Your task to perform on an android device: Open Amazon Image 0: 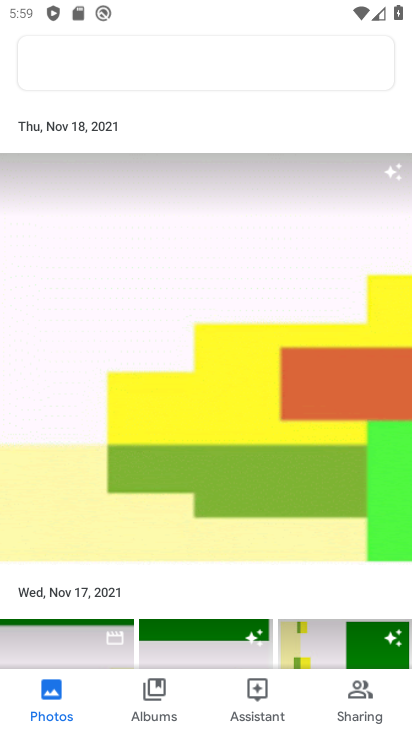
Step 0: drag from (289, 644) to (366, 143)
Your task to perform on an android device: Open Amazon Image 1: 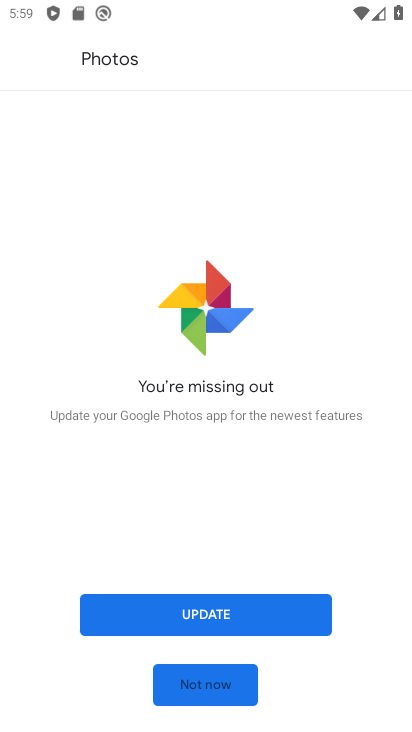
Step 1: press back button
Your task to perform on an android device: Open Amazon Image 2: 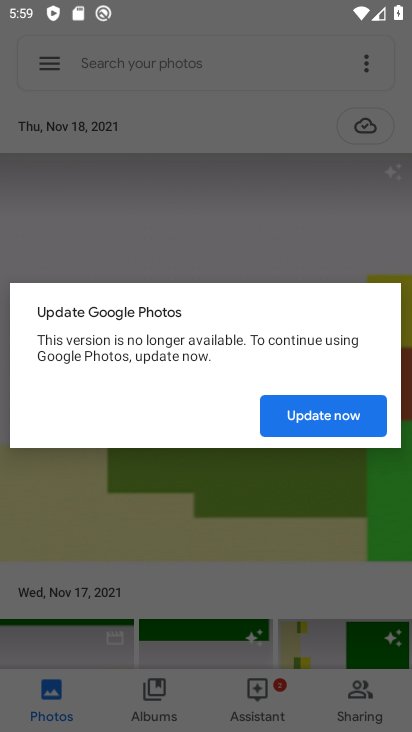
Step 2: press home button
Your task to perform on an android device: Open Amazon Image 3: 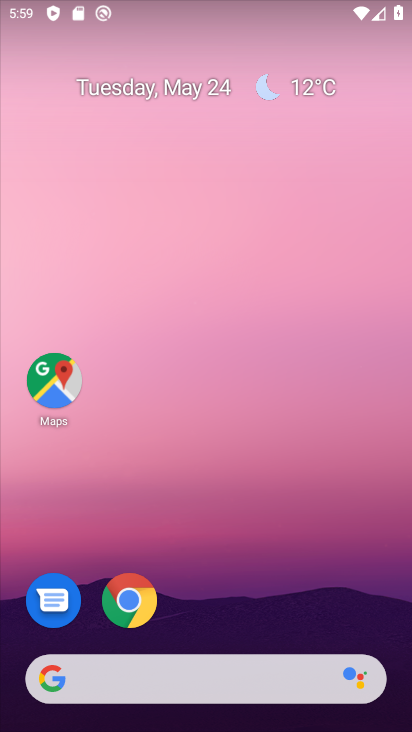
Step 3: drag from (288, 632) to (376, 12)
Your task to perform on an android device: Open Amazon Image 4: 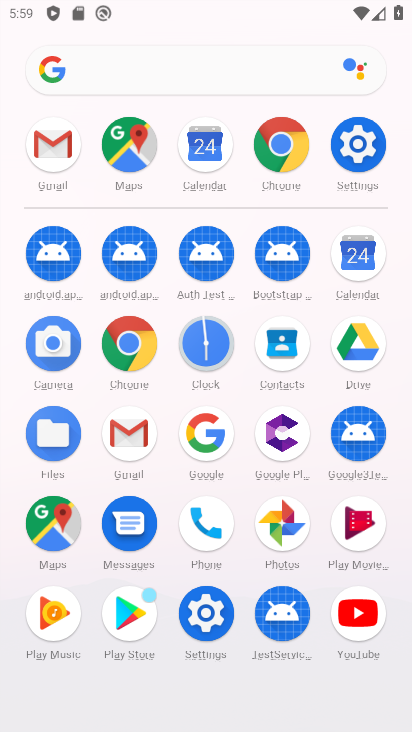
Step 4: click (134, 339)
Your task to perform on an android device: Open Amazon Image 5: 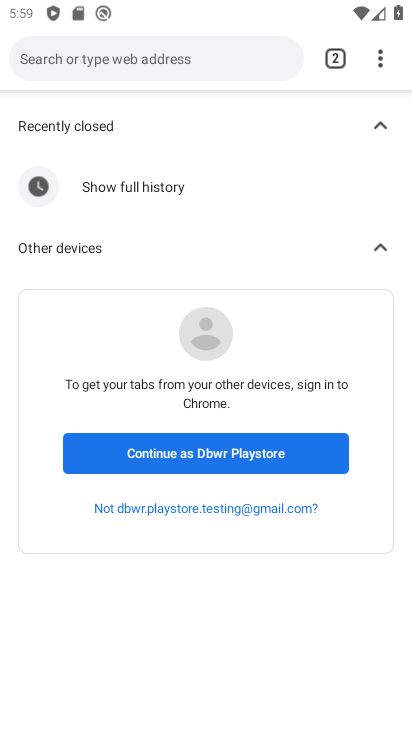
Step 5: click (373, 60)
Your task to perform on an android device: Open Amazon Image 6: 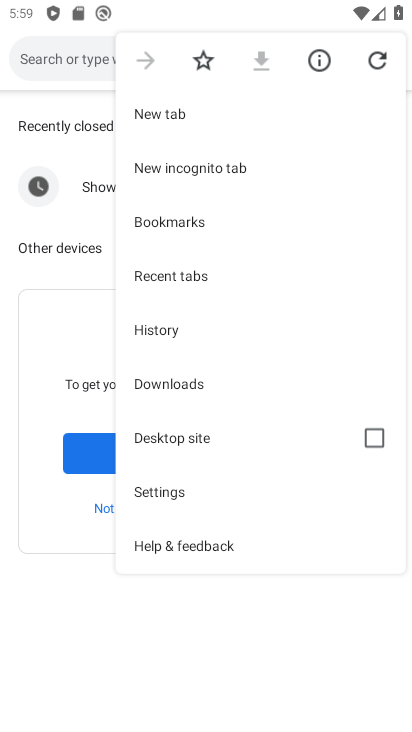
Step 6: click (237, 119)
Your task to perform on an android device: Open Amazon Image 7: 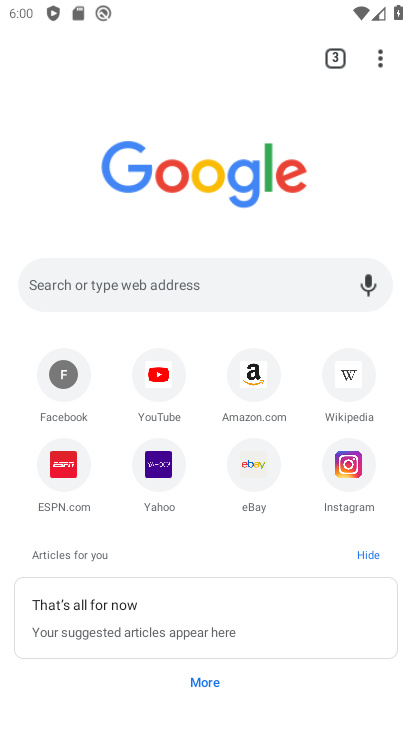
Step 7: click (275, 381)
Your task to perform on an android device: Open Amazon Image 8: 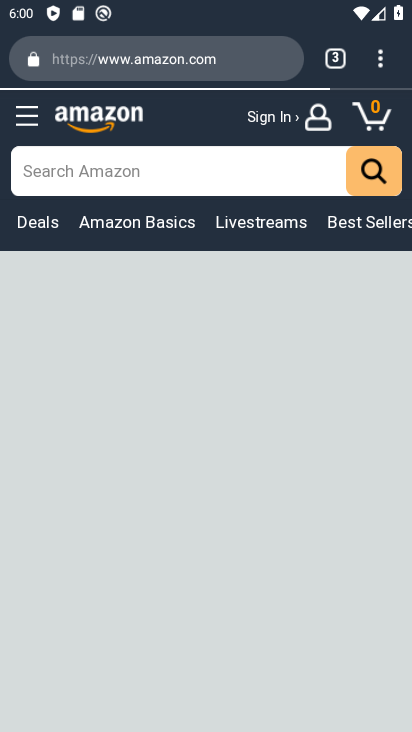
Step 8: task complete